Your task to perform on an android device: Go to Google maps Image 0: 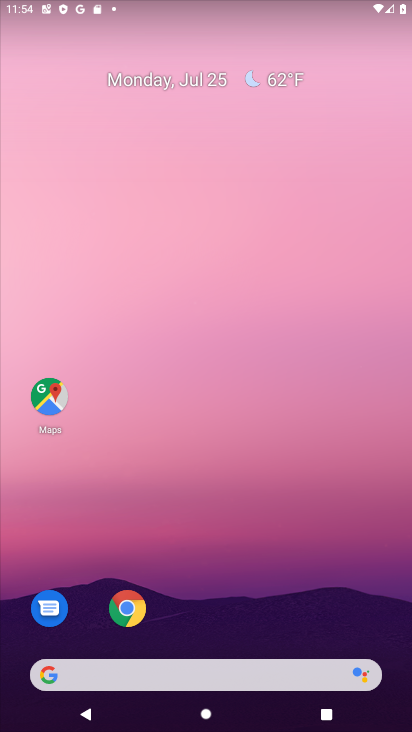
Step 0: click (52, 397)
Your task to perform on an android device: Go to Google maps Image 1: 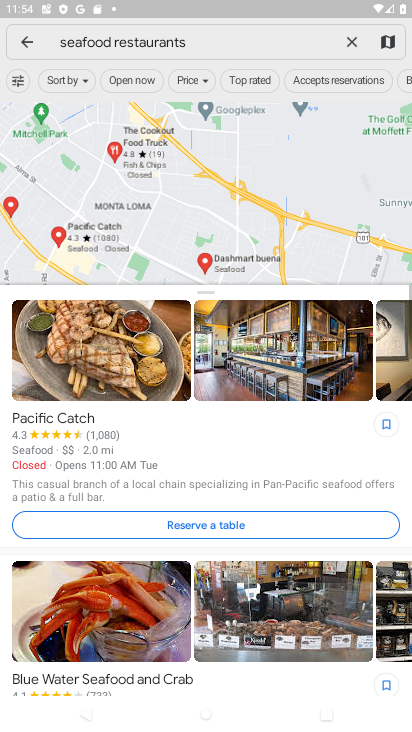
Step 1: task complete